Your task to perform on an android device: Open the map Image 0: 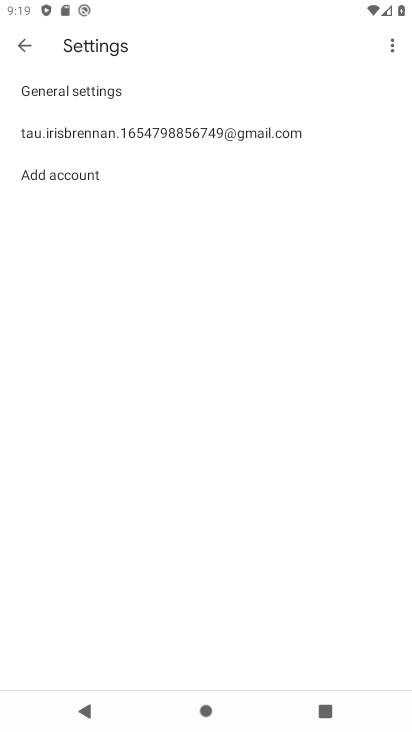
Step 0: press home button
Your task to perform on an android device: Open the map Image 1: 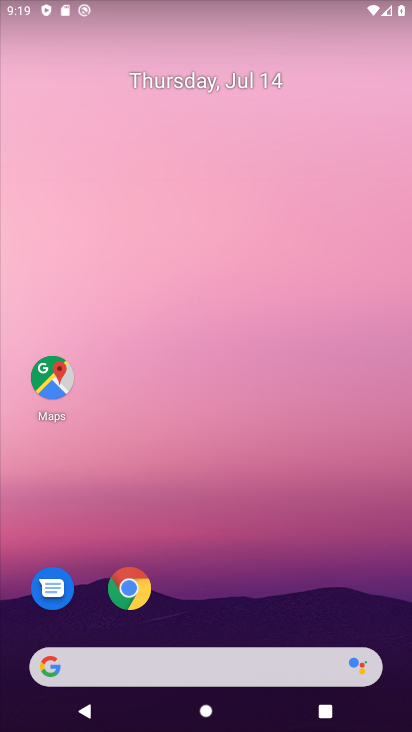
Step 1: click (54, 372)
Your task to perform on an android device: Open the map Image 2: 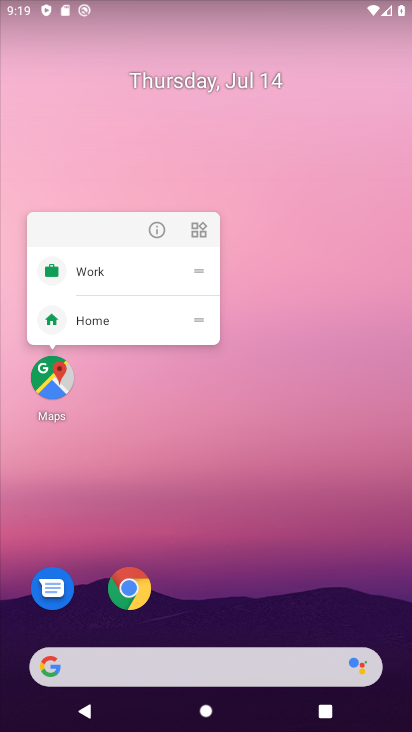
Step 2: click (55, 384)
Your task to perform on an android device: Open the map Image 3: 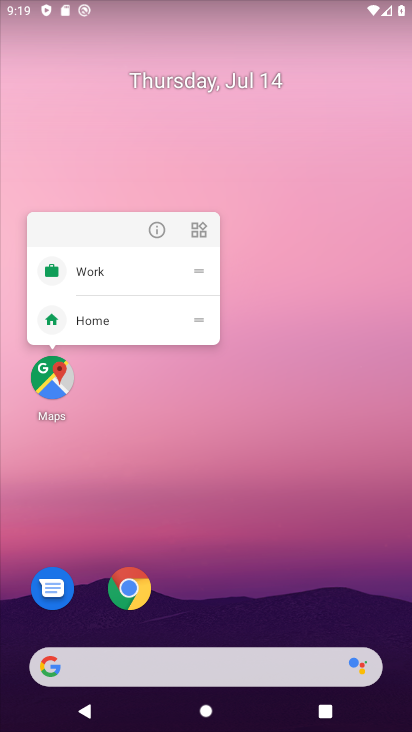
Step 3: click (59, 395)
Your task to perform on an android device: Open the map Image 4: 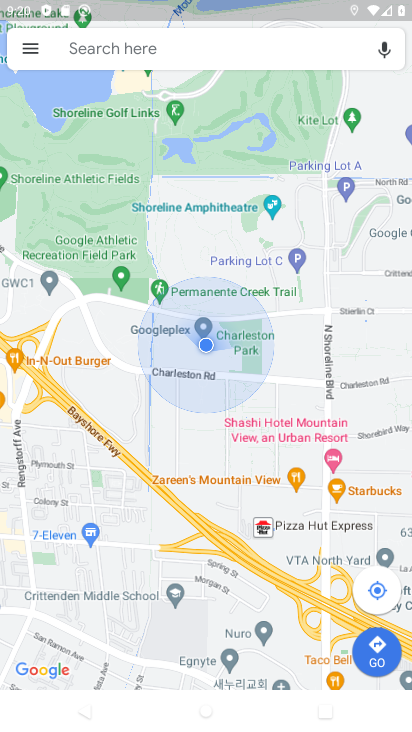
Step 4: task complete